Your task to perform on an android device: turn on wifi Image 0: 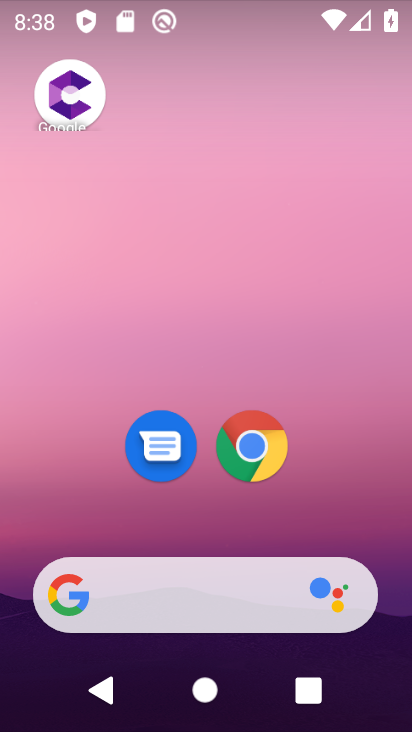
Step 0: click (350, 30)
Your task to perform on an android device: turn on wifi Image 1: 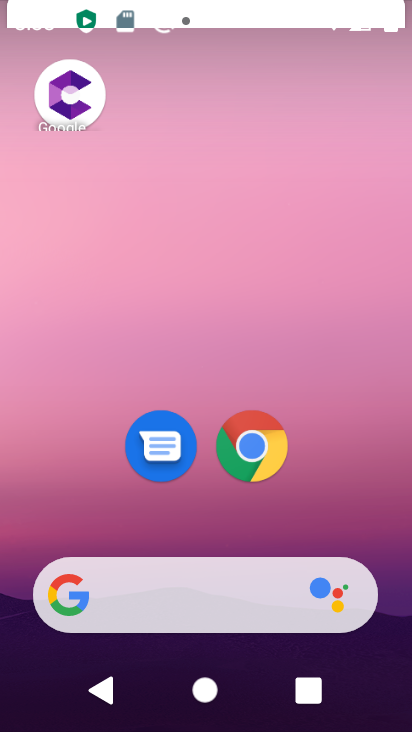
Step 1: task complete